Your task to perform on an android device: Open settings Image 0: 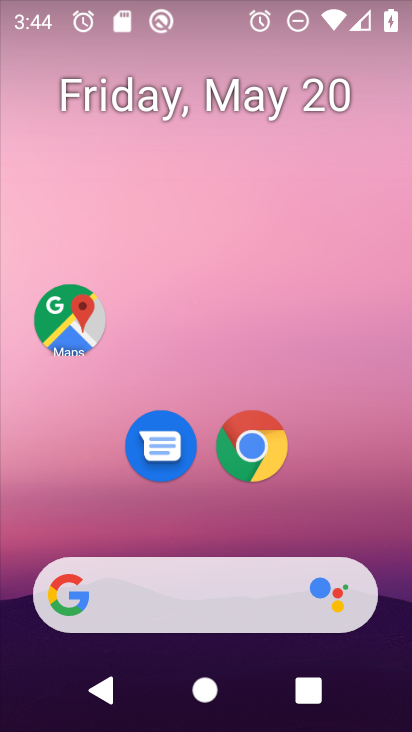
Step 0: drag from (357, 537) to (395, 9)
Your task to perform on an android device: Open settings Image 1: 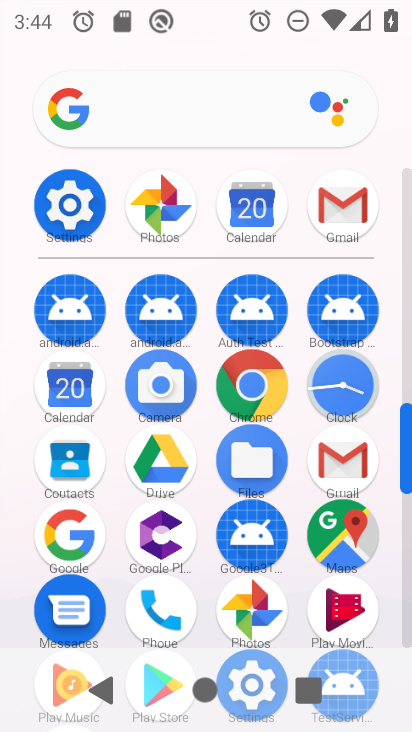
Step 1: click (68, 209)
Your task to perform on an android device: Open settings Image 2: 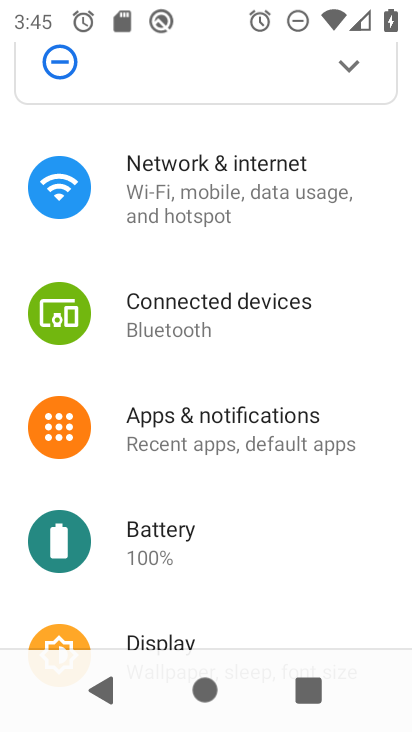
Step 2: task complete